Your task to perform on an android device: Open sound settings Image 0: 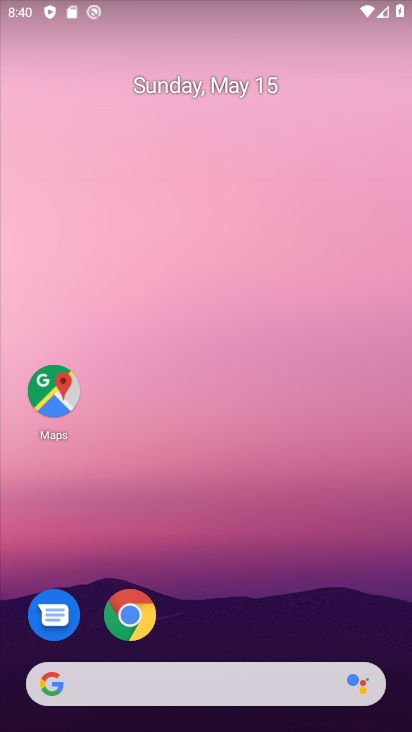
Step 0: drag from (262, 556) to (217, 65)
Your task to perform on an android device: Open sound settings Image 1: 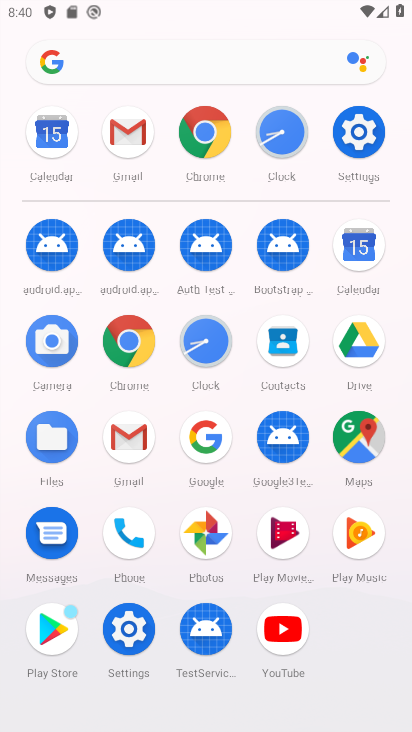
Step 1: click (354, 133)
Your task to perform on an android device: Open sound settings Image 2: 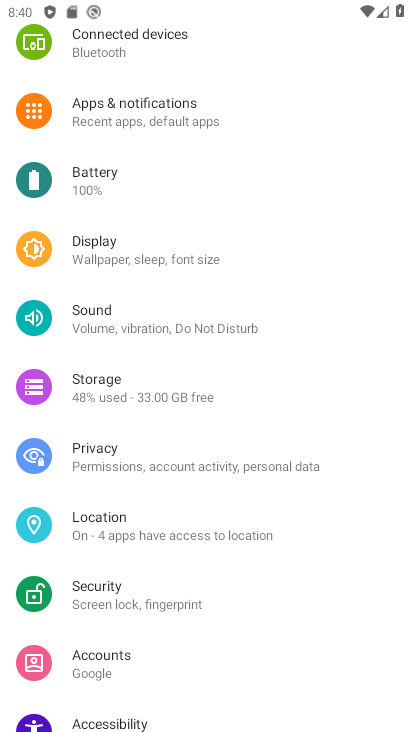
Step 2: click (99, 317)
Your task to perform on an android device: Open sound settings Image 3: 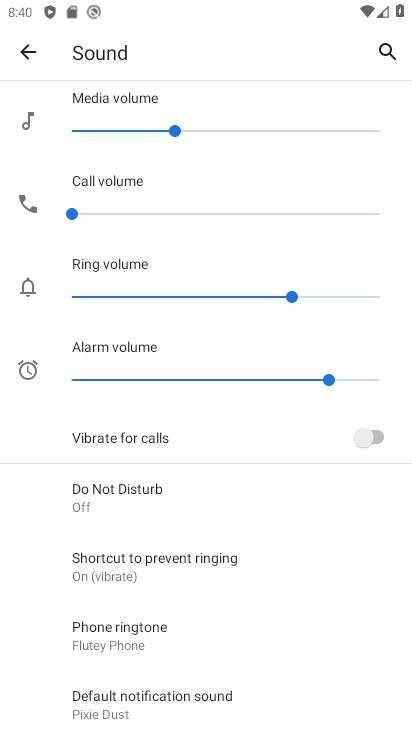
Step 3: task complete